Your task to perform on an android device: Go to network settings Image 0: 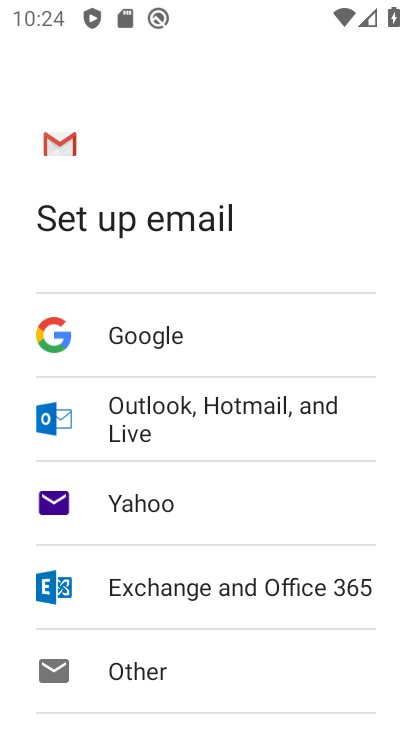
Step 0: press back button
Your task to perform on an android device: Go to network settings Image 1: 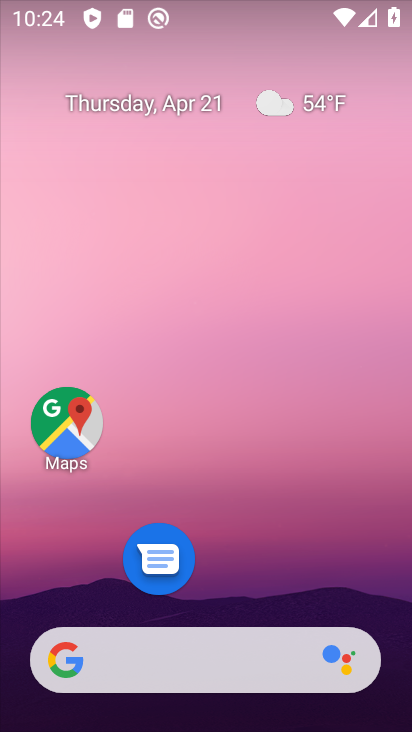
Step 1: drag from (287, 504) to (290, 83)
Your task to perform on an android device: Go to network settings Image 2: 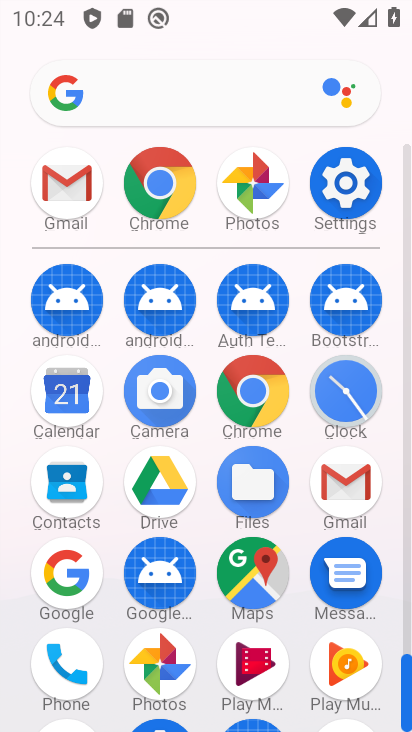
Step 2: click (355, 181)
Your task to perform on an android device: Go to network settings Image 3: 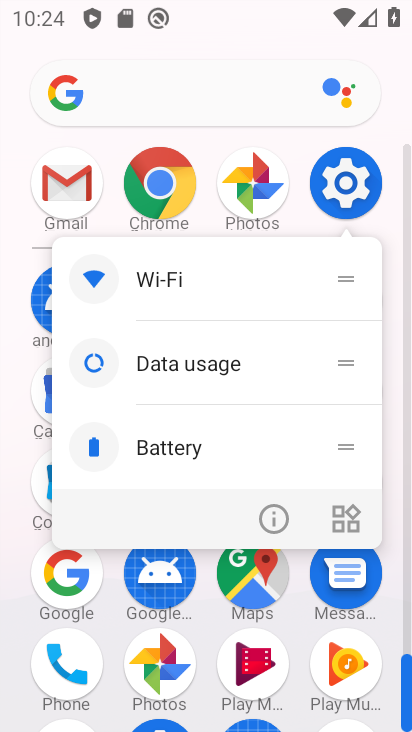
Step 3: click (358, 188)
Your task to perform on an android device: Go to network settings Image 4: 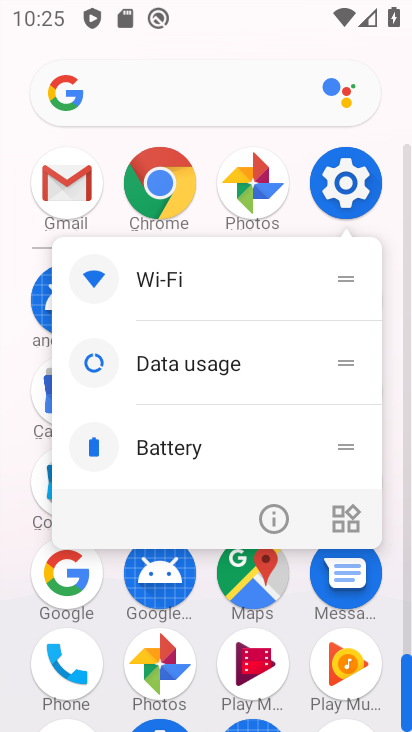
Step 4: click (355, 191)
Your task to perform on an android device: Go to network settings Image 5: 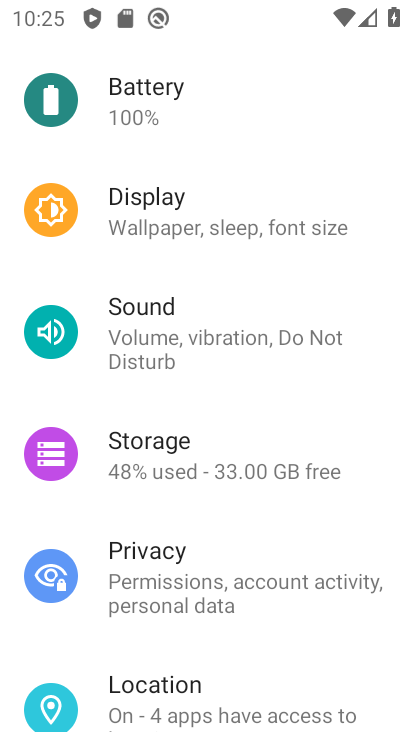
Step 5: drag from (216, 175) to (178, 652)
Your task to perform on an android device: Go to network settings Image 6: 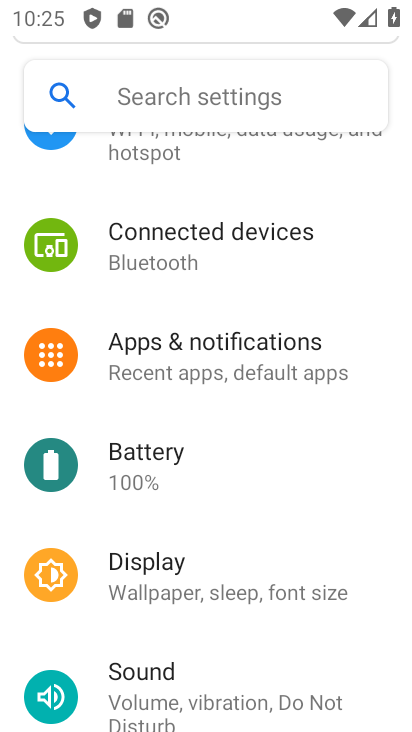
Step 6: drag from (212, 318) to (205, 643)
Your task to perform on an android device: Go to network settings Image 7: 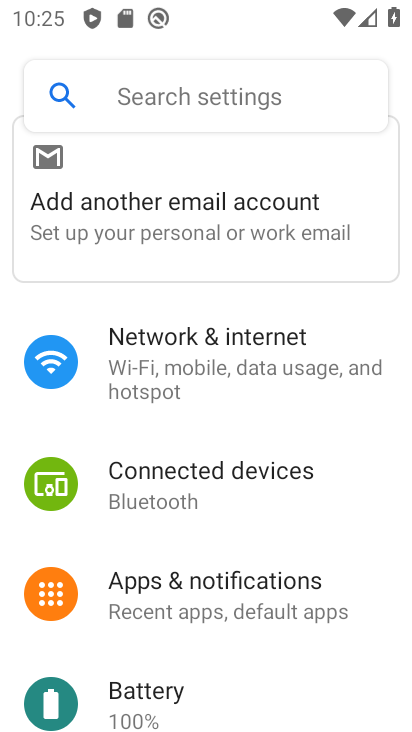
Step 7: click (192, 364)
Your task to perform on an android device: Go to network settings Image 8: 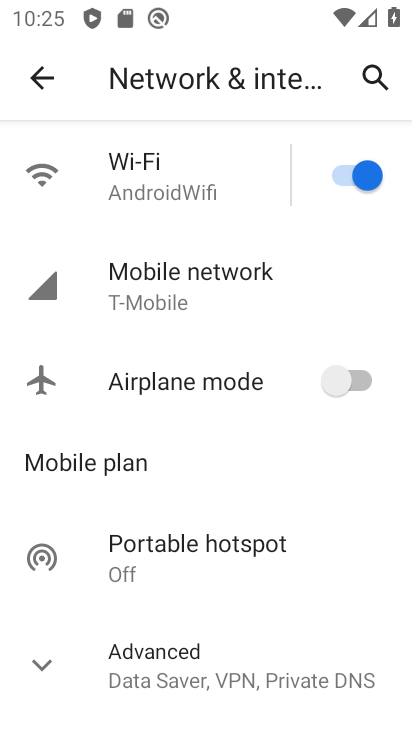
Step 8: task complete